Your task to perform on an android device: Go to CNN.com Image 0: 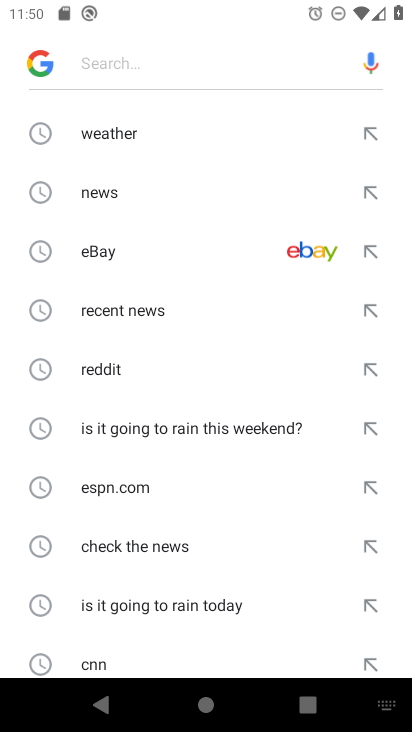
Step 0: press home button
Your task to perform on an android device: Go to CNN.com Image 1: 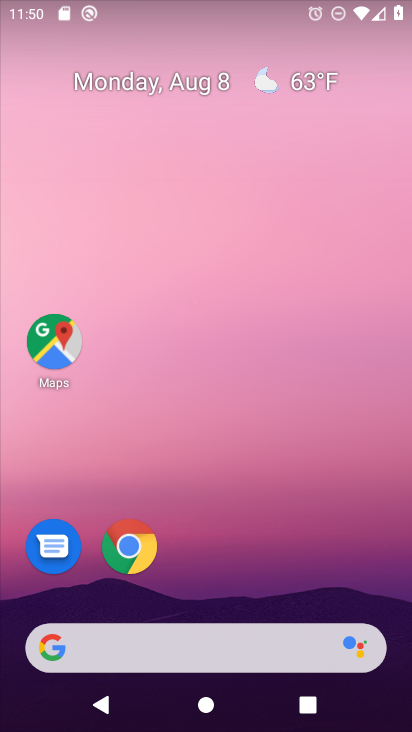
Step 1: drag from (267, 597) to (279, 136)
Your task to perform on an android device: Go to CNN.com Image 2: 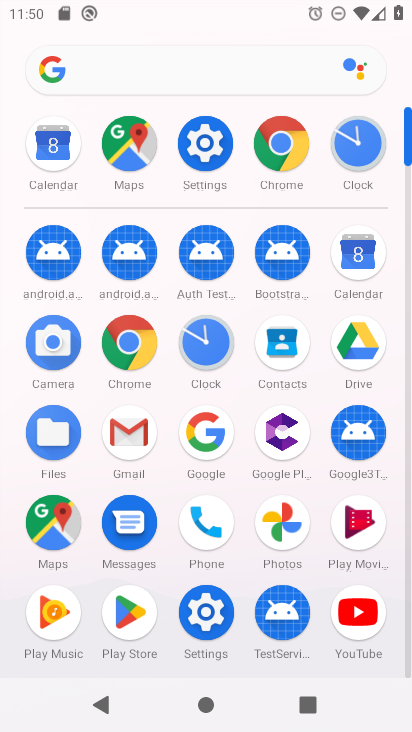
Step 2: click (125, 341)
Your task to perform on an android device: Go to CNN.com Image 3: 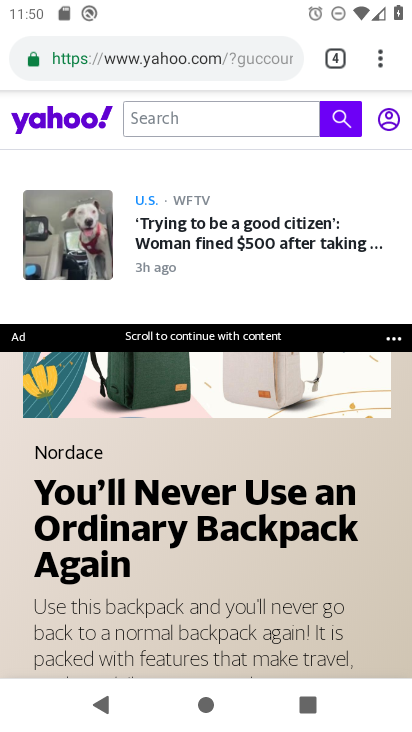
Step 3: click (333, 49)
Your task to perform on an android device: Go to CNN.com Image 4: 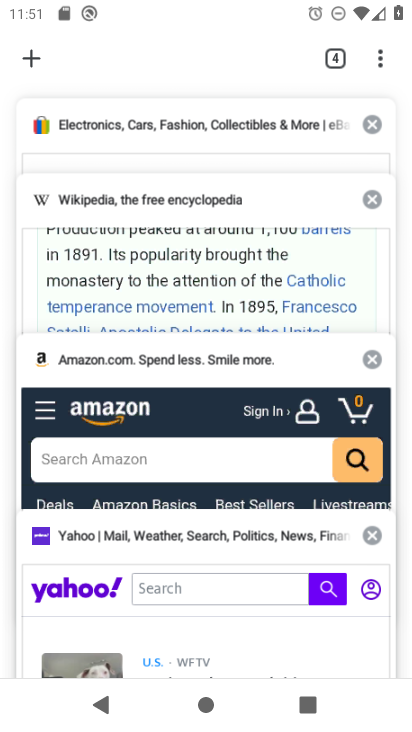
Step 4: click (28, 48)
Your task to perform on an android device: Go to CNN.com Image 5: 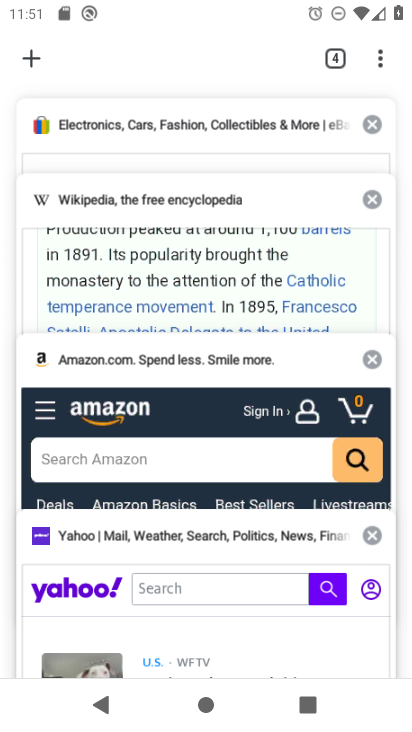
Step 5: click (36, 61)
Your task to perform on an android device: Go to CNN.com Image 6: 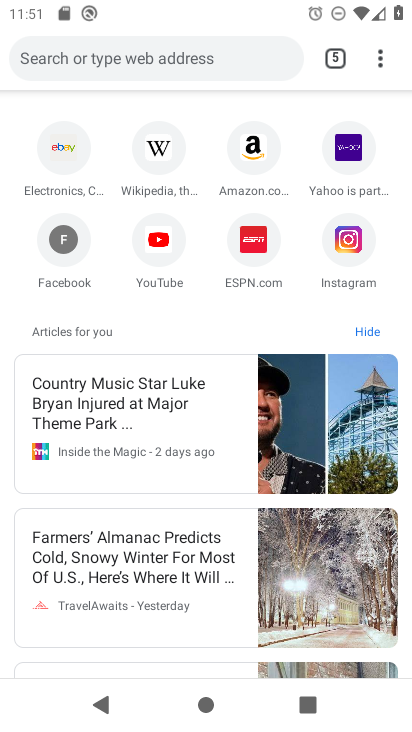
Step 6: click (80, 57)
Your task to perform on an android device: Go to CNN.com Image 7: 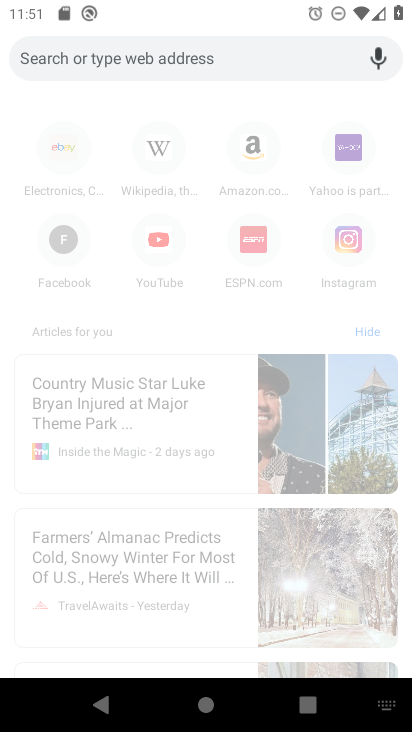
Step 7: type "cnn.com"
Your task to perform on an android device: Go to CNN.com Image 8: 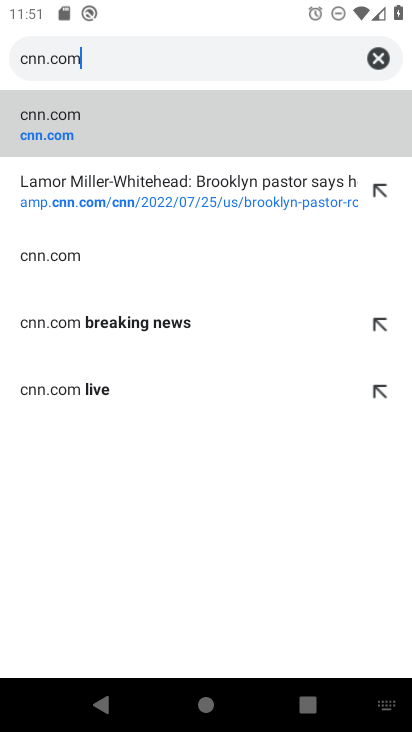
Step 8: click (59, 132)
Your task to perform on an android device: Go to CNN.com Image 9: 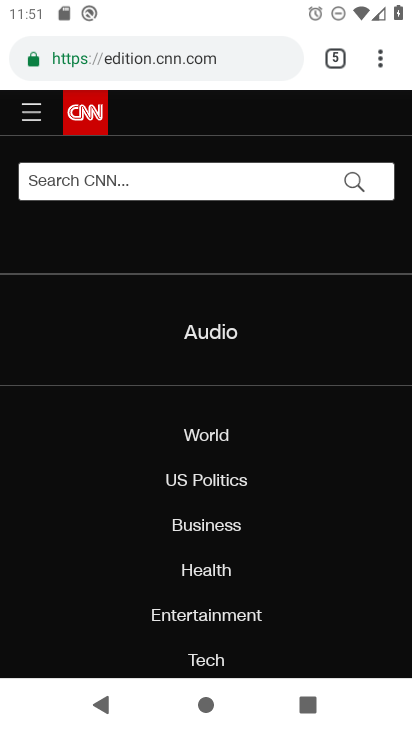
Step 9: task complete